Your task to perform on an android device: toggle wifi Image 0: 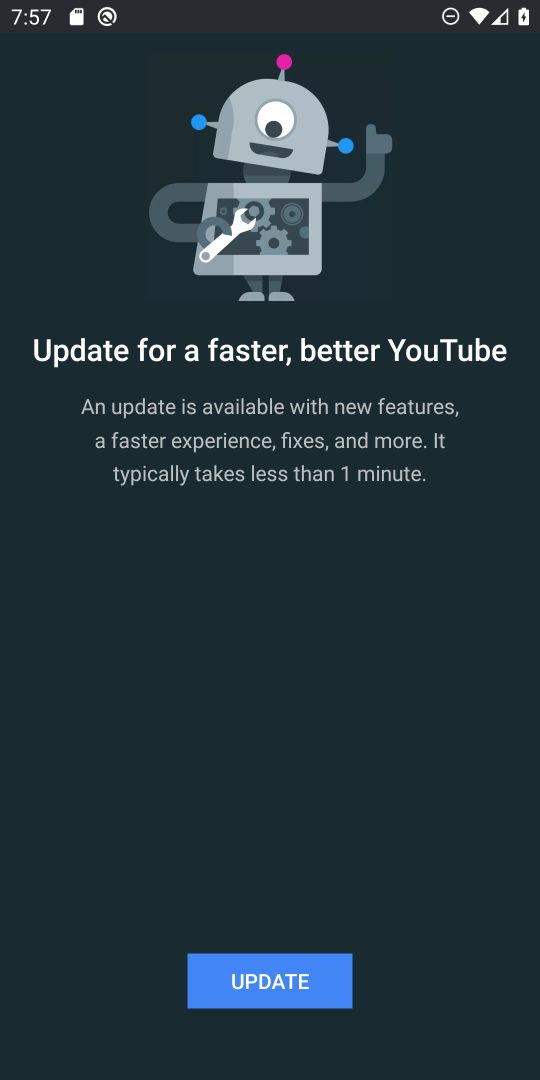
Step 0: press home button
Your task to perform on an android device: toggle wifi Image 1: 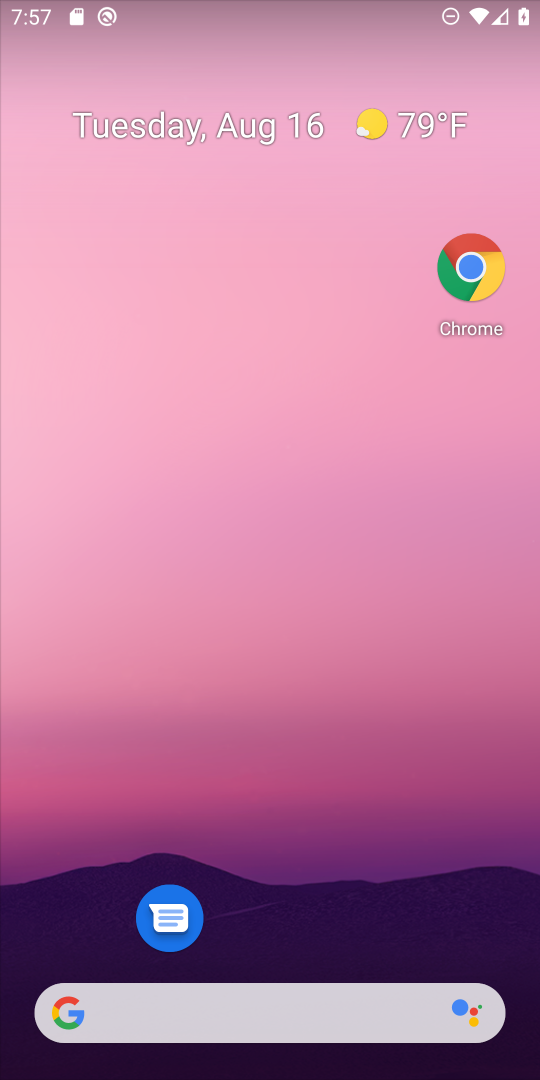
Step 1: drag from (234, 936) to (110, 249)
Your task to perform on an android device: toggle wifi Image 2: 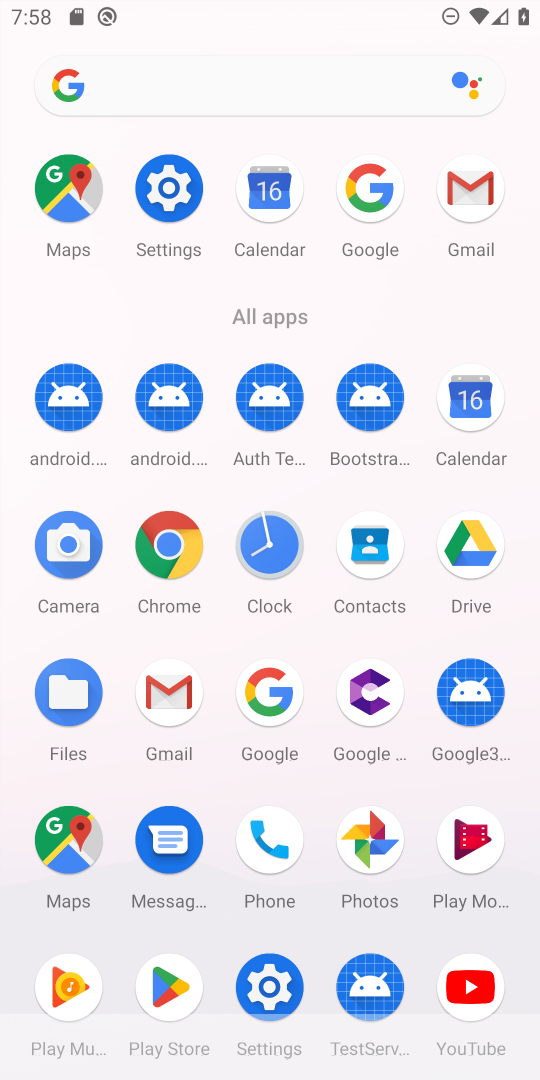
Step 2: click (179, 180)
Your task to perform on an android device: toggle wifi Image 3: 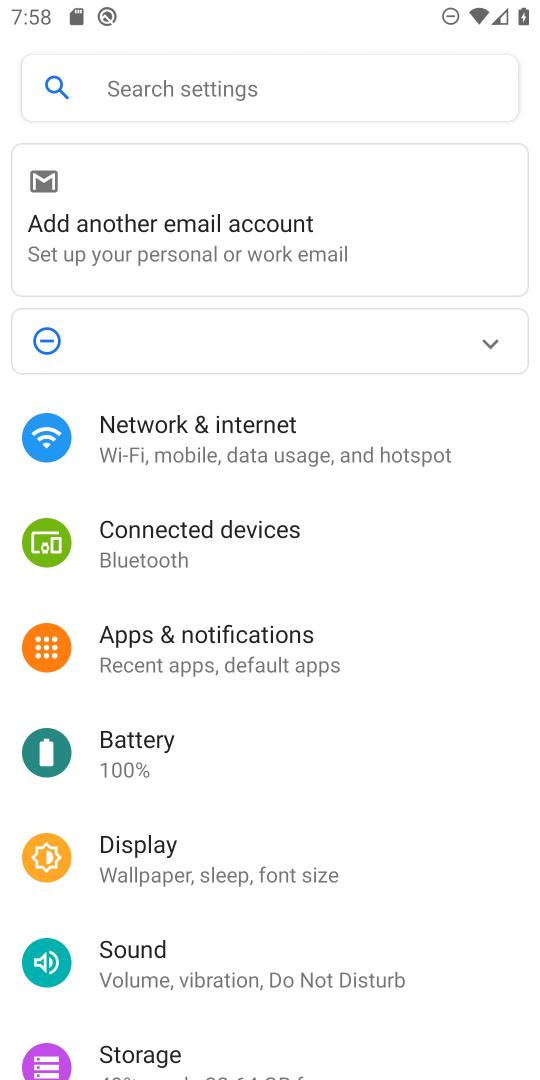
Step 3: click (262, 426)
Your task to perform on an android device: toggle wifi Image 4: 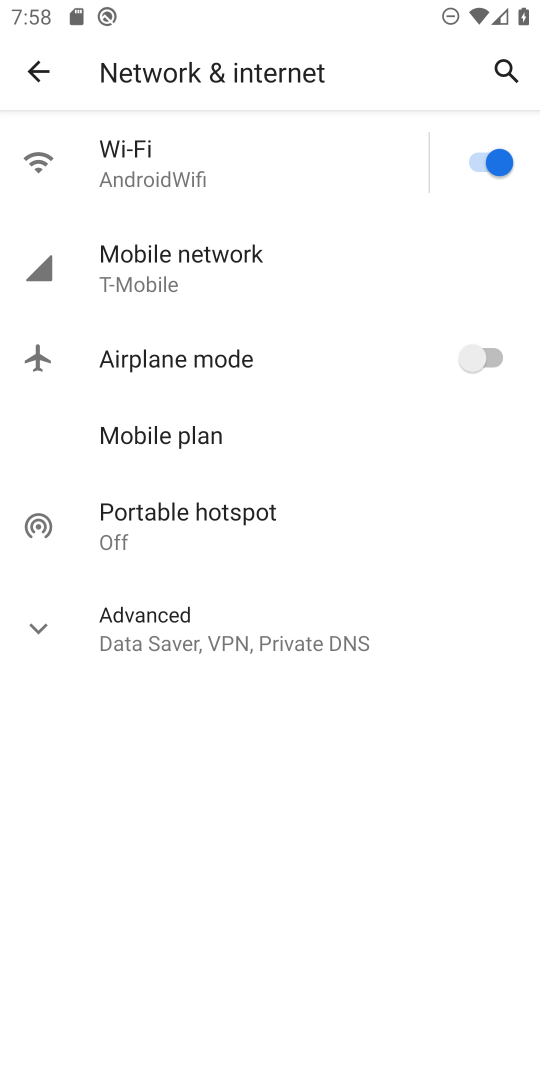
Step 4: click (470, 163)
Your task to perform on an android device: toggle wifi Image 5: 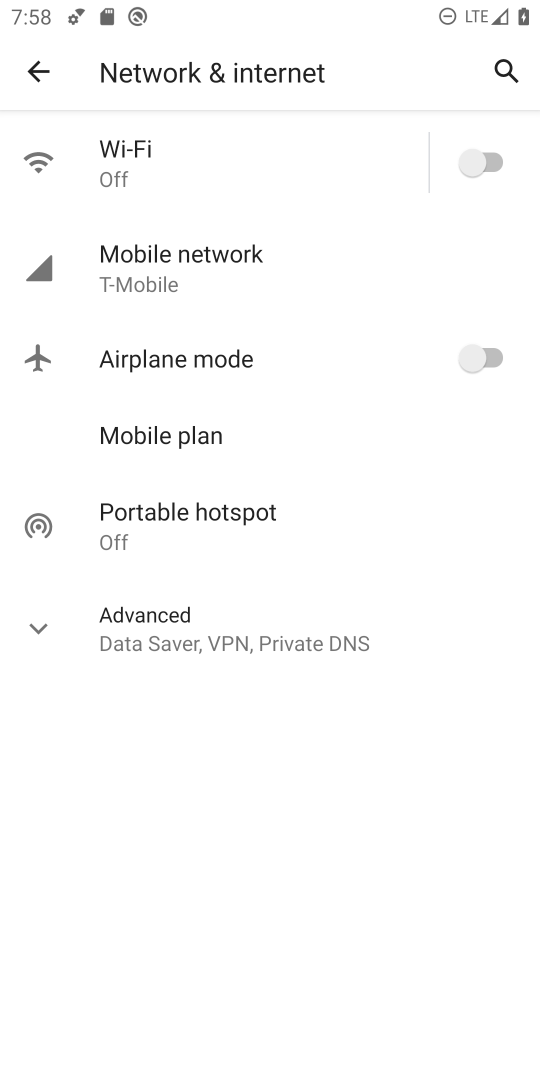
Step 5: task complete